Your task to perform on an android device: set the timer Image 0: 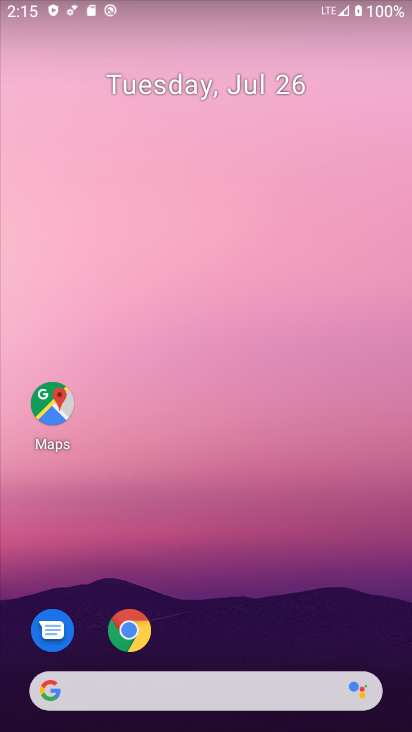
Step 0: drag from (261, 679) to (223, 243)
Your task to perform on an android device: set the timer Image 1: 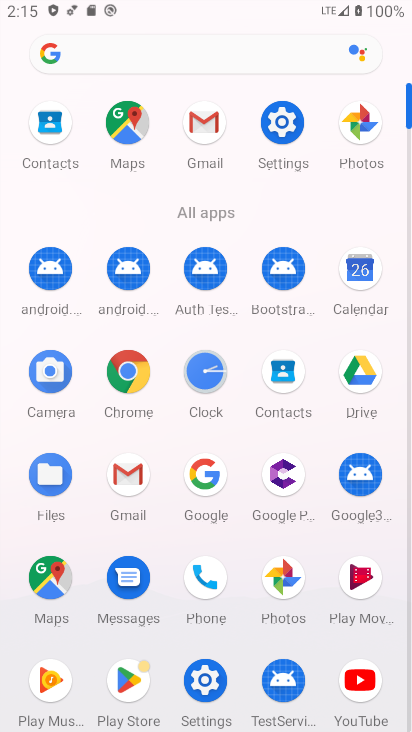
Step 1: click (203, 391)
Your task to perform on an android device: set the timer Image 2: 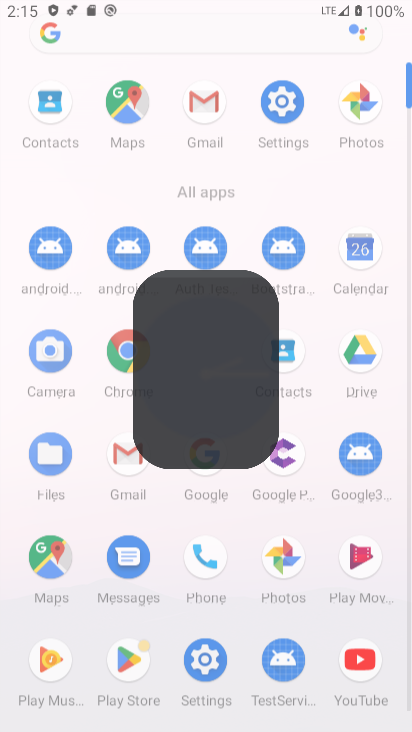
Step 2: click (206, 382)
Your task to perform on an android device: set the timer Image 3: 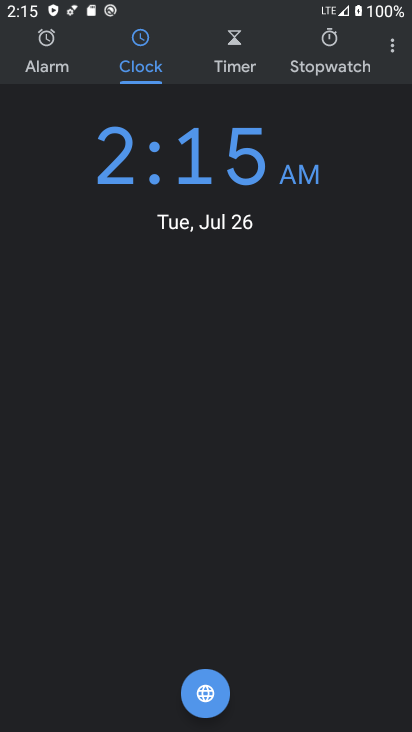
Step 3: click (207, 383)
Your task to perform on an android device: set the timer Image 4: 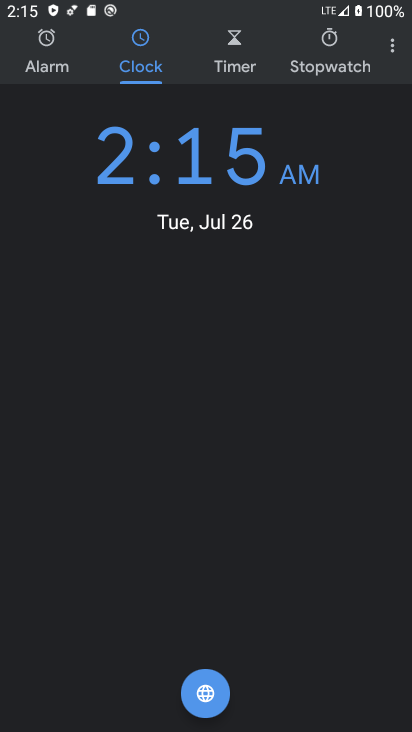
Step 4: click (235, 54)
Your task to perform on an android device: set the timer Image 5: 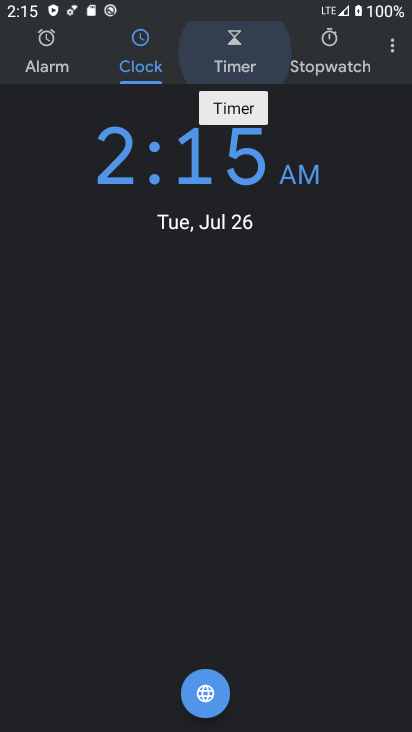
Step 5: click (239, 54)
Your task to perform on an android device: set the timer Image 6: 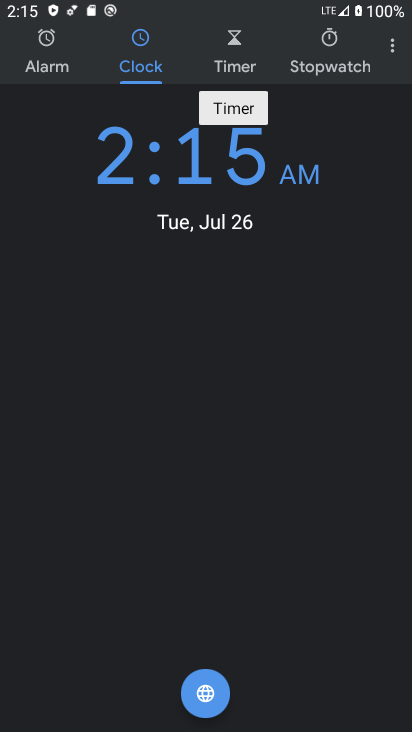
Step 6: click (239, 56)
Your task to perform on an android device: set the timer Image 7: 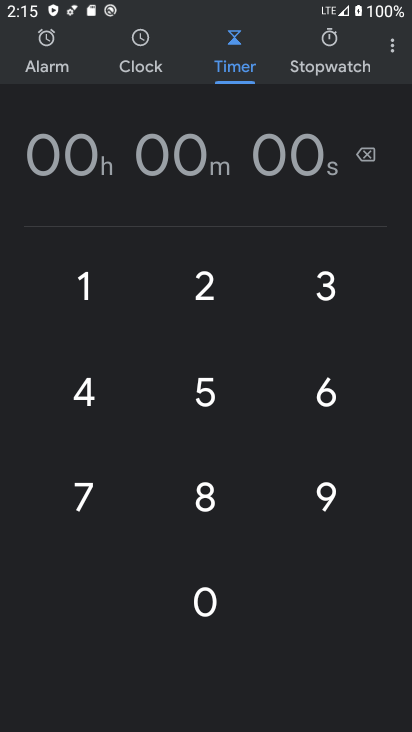
Step 7: click (205, 292)
Your task to perform on an android device: set the timer Image 8: 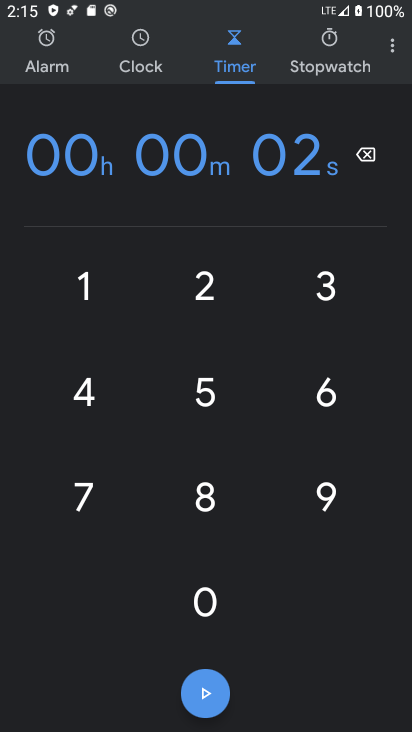
Step 8: click (209, 697)
Your task to perform on an android device: set the timer Image 9: 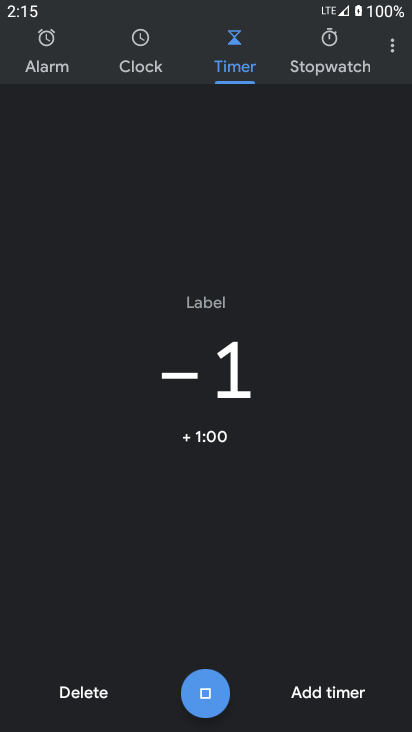
Step 9: click (201, 690)
Your task to perform on an android device: set the timer Image 10: 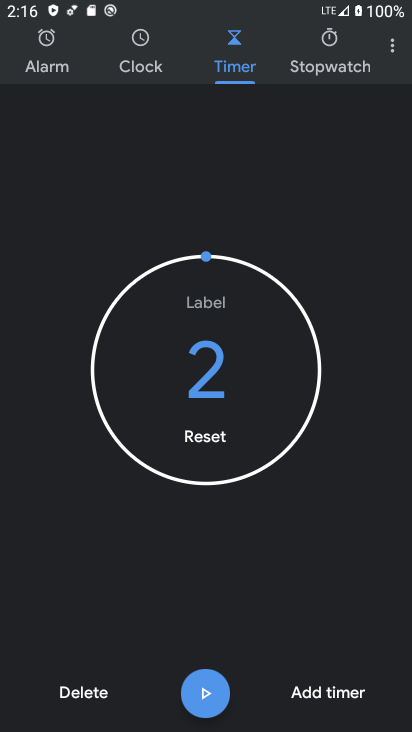
Step 10: task complete